Your task to perform on an android device: Search for macbook pro on ebay, select the first entry, and add it to the cart. Image 0: 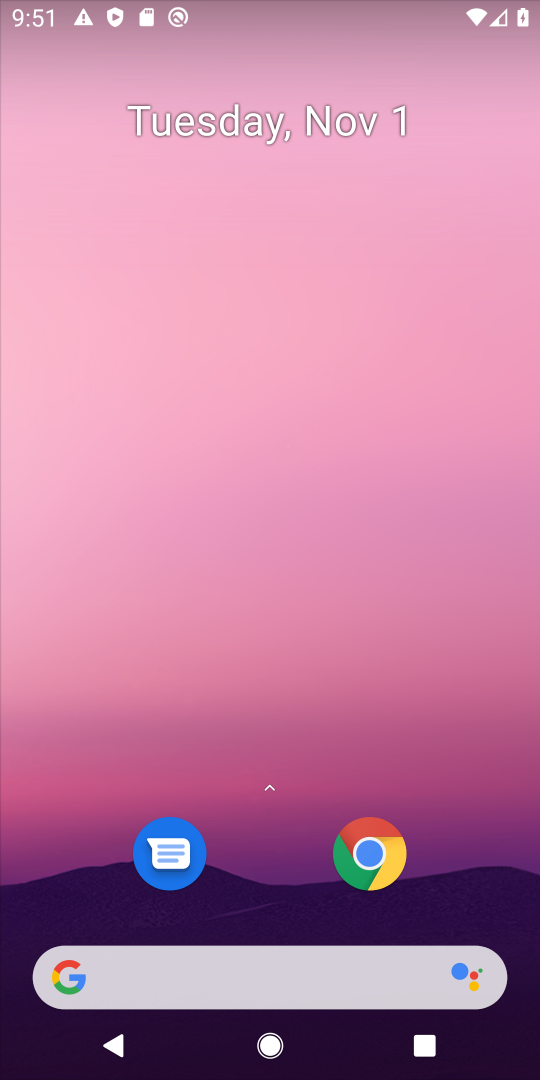
Step 0: click (272, 996)
Your task to perform on an android device: Search for macbook pro on ebay, select the first entry, and add it to the cart. Image 1: 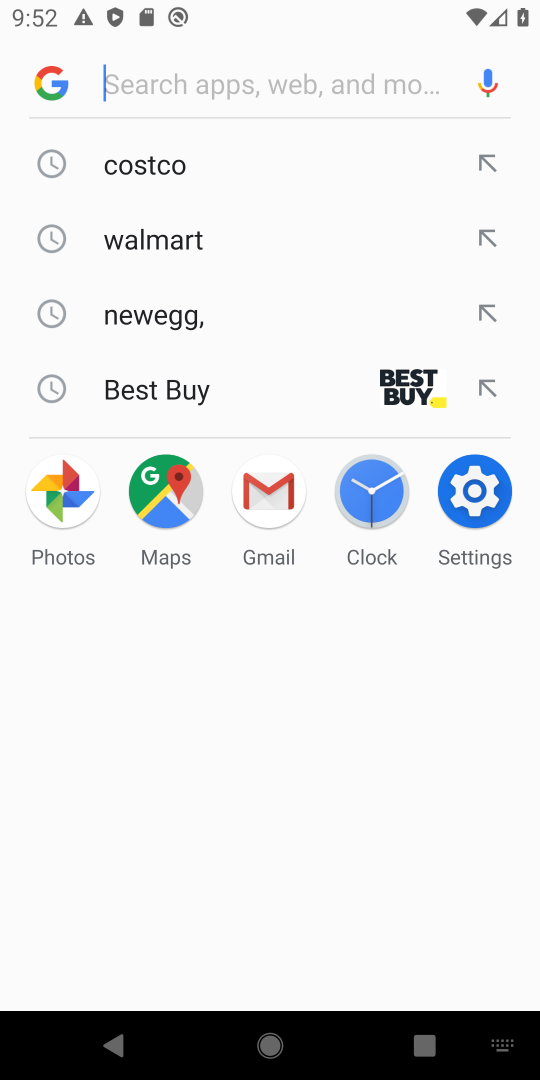
Step 1: type "ebay"
Your task to perform on an android device: Search for macbook pro on ebay, select the first entry, and add it to the cart. Image 2: 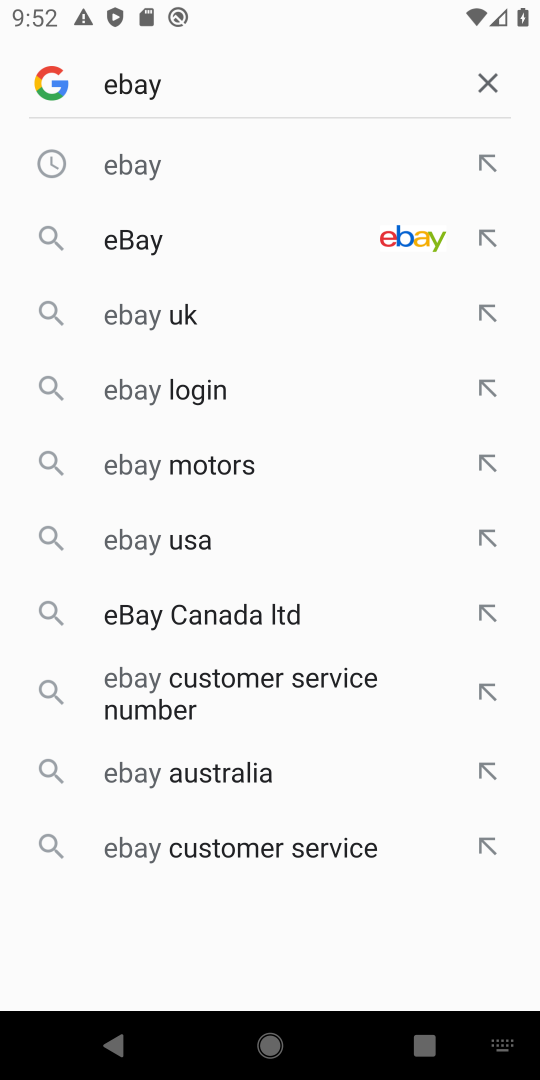
Step 2: click (183, 234)
Your task to perform on an android device: Search for macbook pro on ebay, select the first entry, and add it to the cart. Image 3: 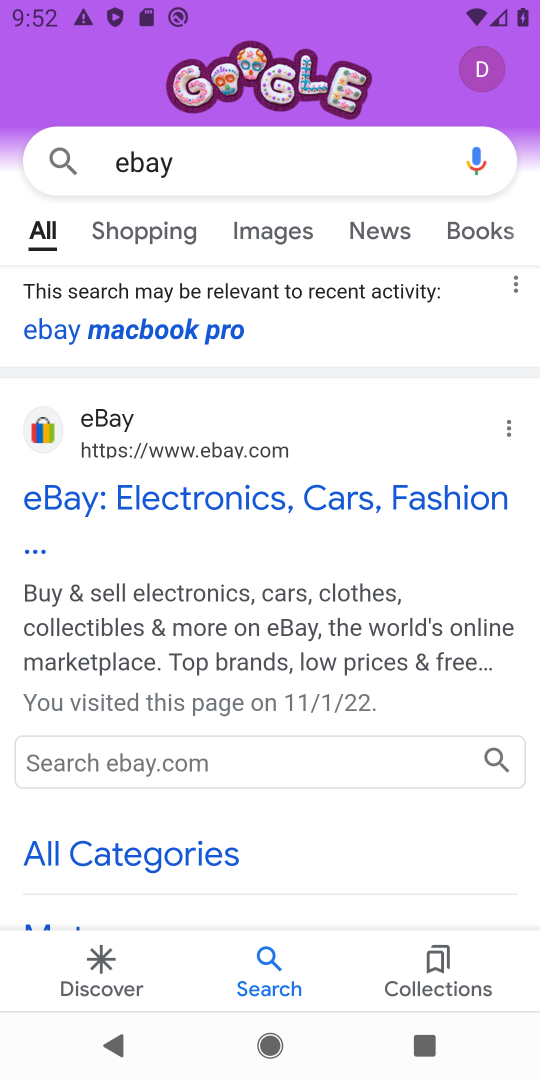
Step 3: click (182, 513)
Your task to perform on an android device: Search for macbook pro on ebay, select the first entry, and add it to the cart. Image 4: 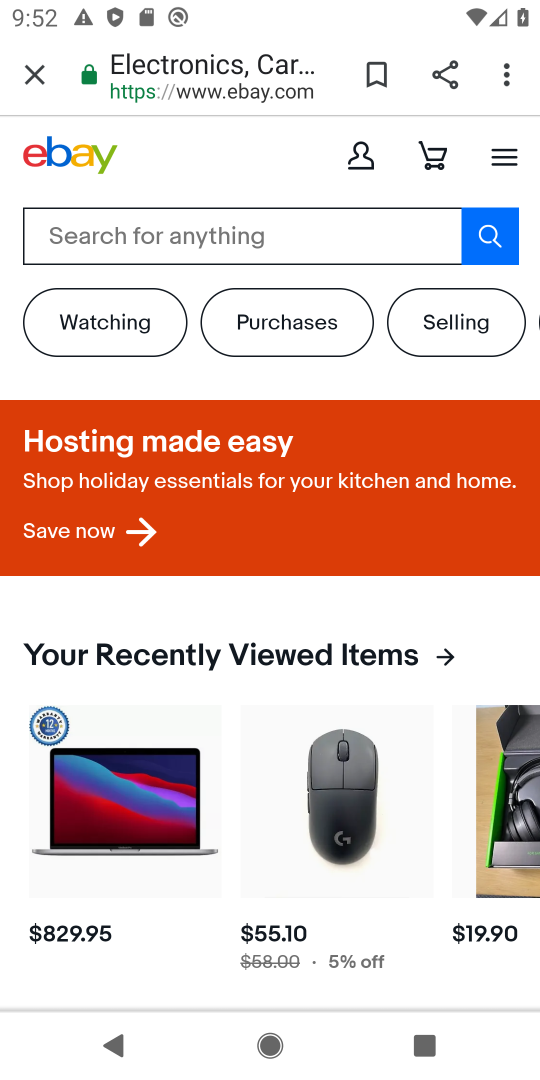
Step 4: click (166, 247)
Your task to perform on an android device: Search for macbook pro on ebay, select the first entry, and add it to the cart. Image 5: 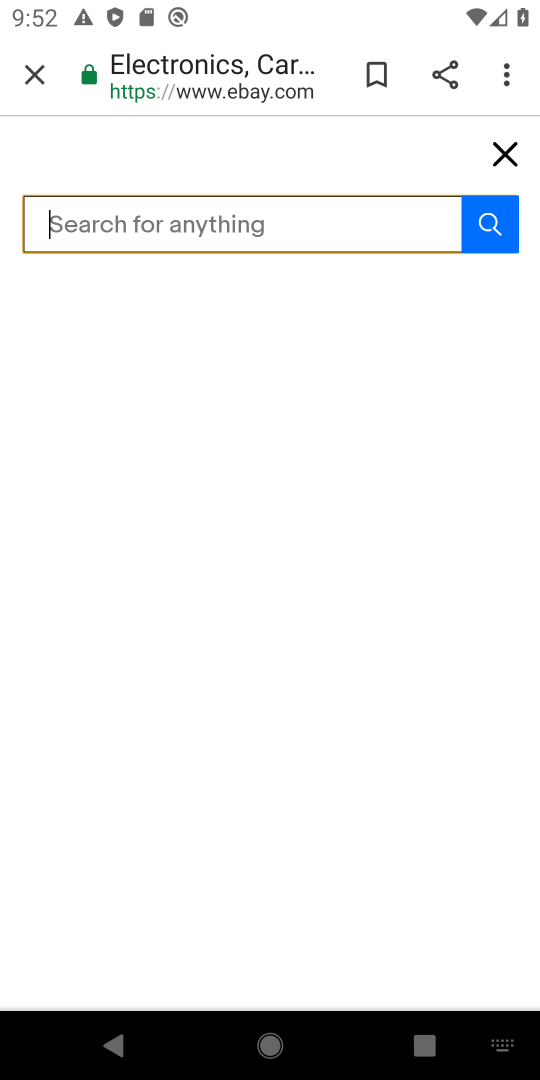
Step 5: type "macbook pro"
Your task to perform on an android device: Search for macbook pro on ebay, select the first entry, and add it to the cart. Image 6: 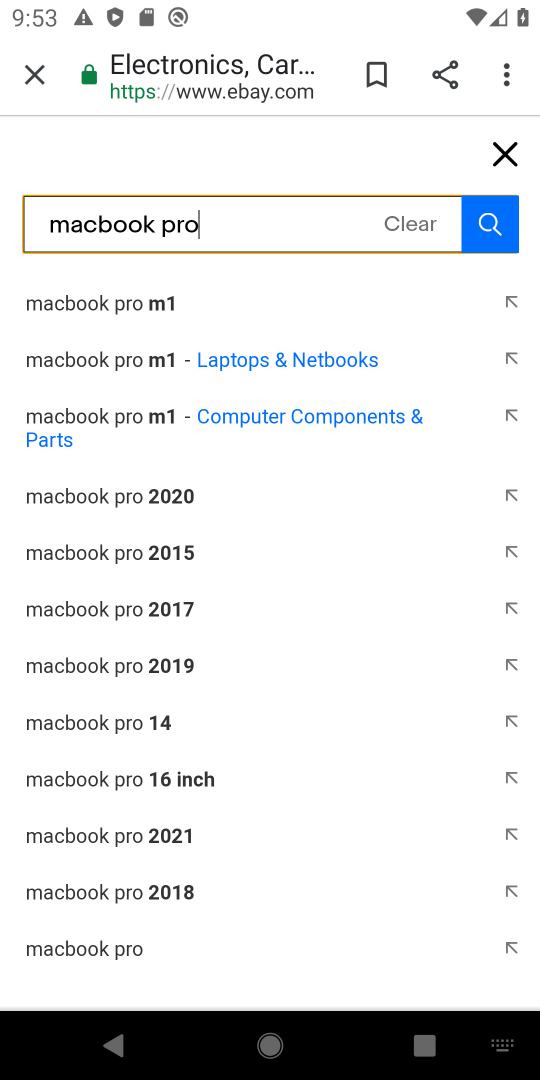
Step 6: click (474, 212)
Your task to perform on an android device: Search for macbook pro on ebay, select the first entry, and add it to the cart. Image 7: 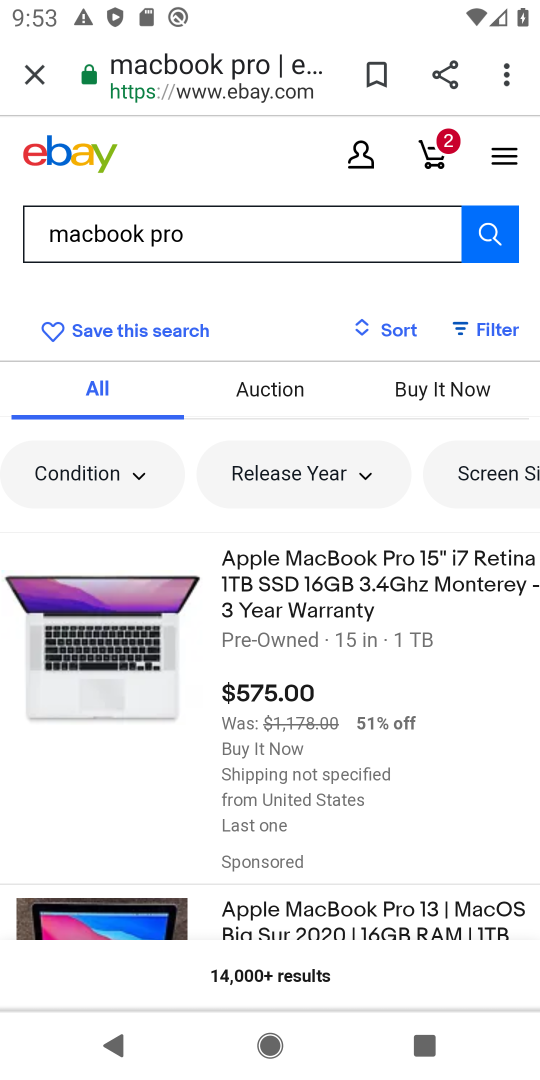
Step 7: click (283, 622)
Your task to perform on an android device: Search for macbook pro on ebay, select the first entry, and add it to the cart. Image 8: 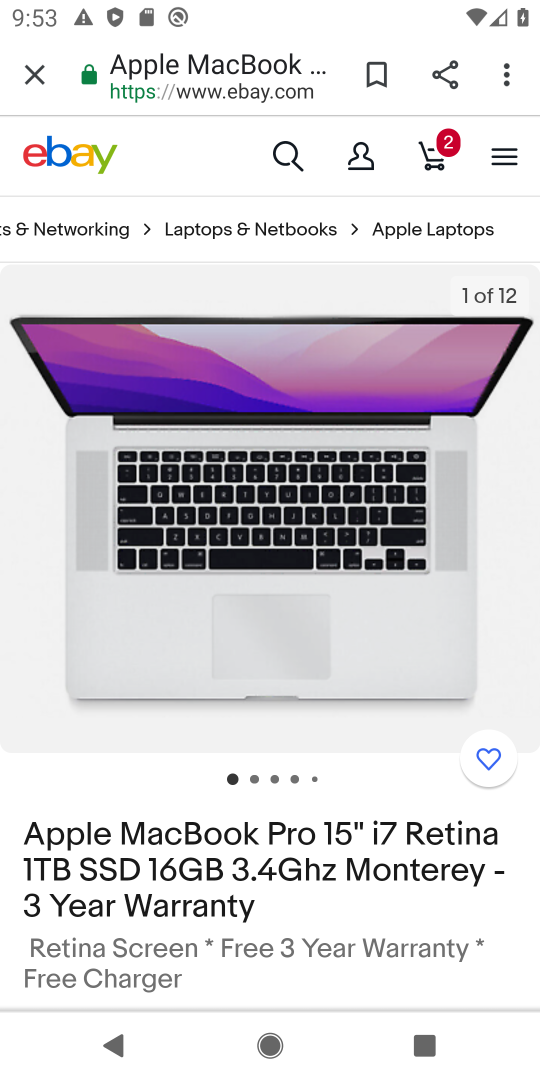
Step 8: drag from (271, 963) to (290, 513)
Your task to perform on an android device: Search for macbook pro on ebay, select the first entry, and add it to the cart. Image 9: 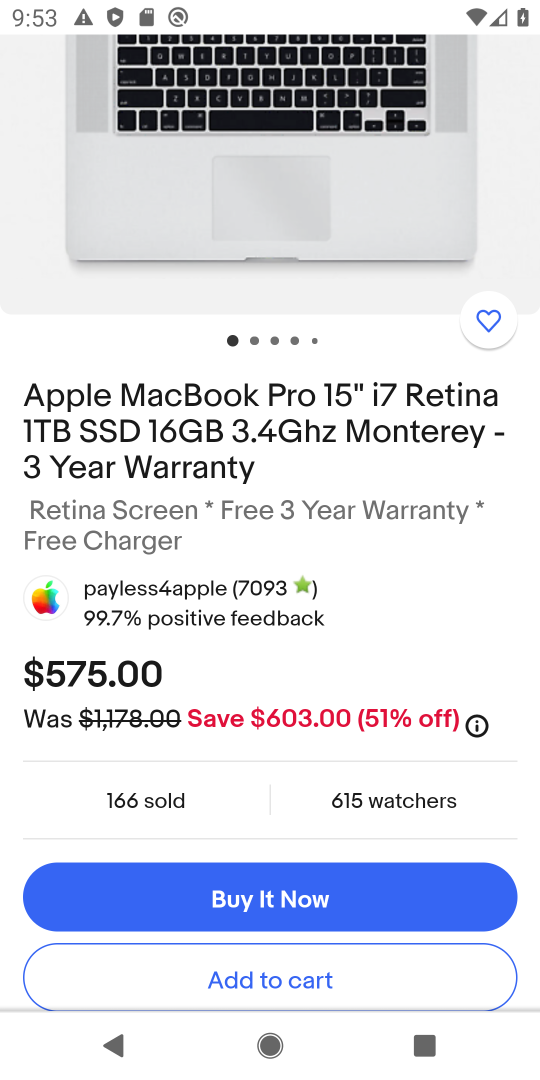
Step 9: click (275, 980)
Your task to perform on an android device: Search for macbook pro on ebay, select the first entry, and add it to the cart. Image 10: 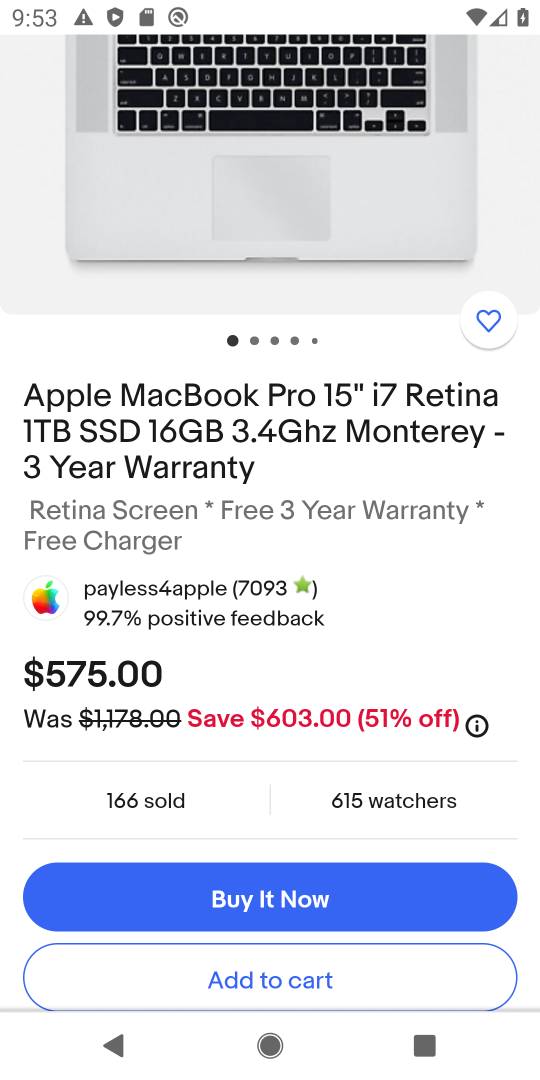
Step 10: task complete